Your task to perform on an android device: toggle notifications settings in the gmail app Image 0: 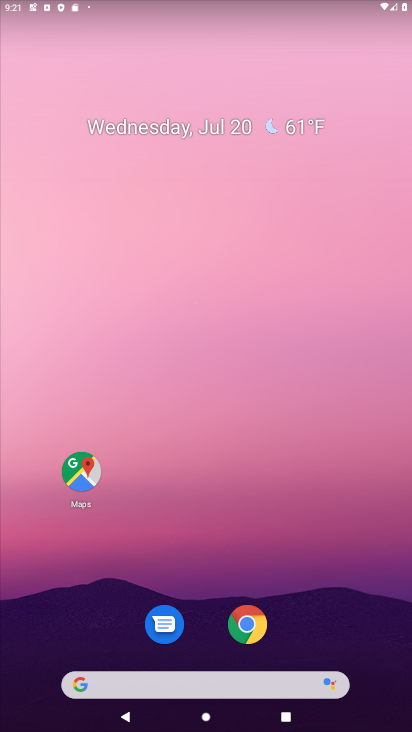
Step 0: drag from (210, 567) to (214, 168)
Your task to perform on an android device: toggle notifications settings in the gmail app Image 1: 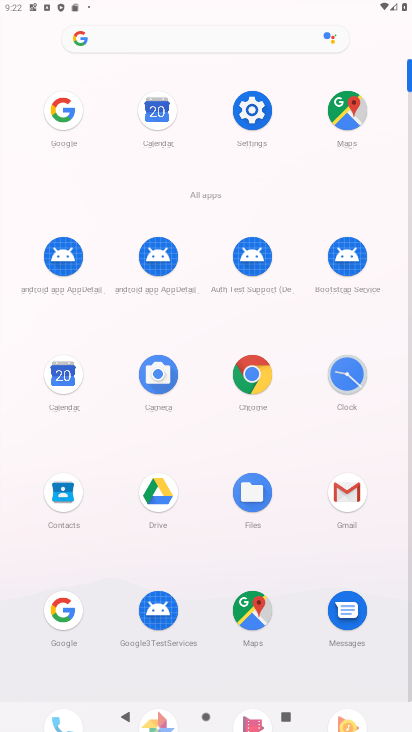
Step 1: click (327, 488)
Your task to perform on an android device: toggle notifications settings in the gmail app Image 2: 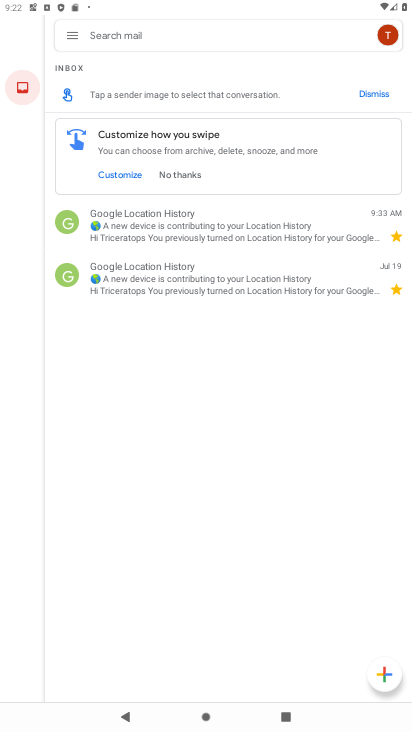
Step 2: click (69, 31)
Your task to perform on an android device: toggle notifications settings in the gmail app Image 3: 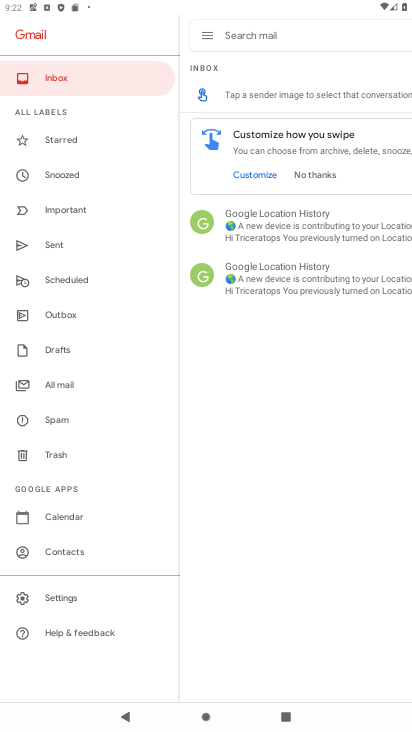
Step 3: click (78, 588)
Your task to perform on an android device: toggle notifications settings in the gmail app Image 4: 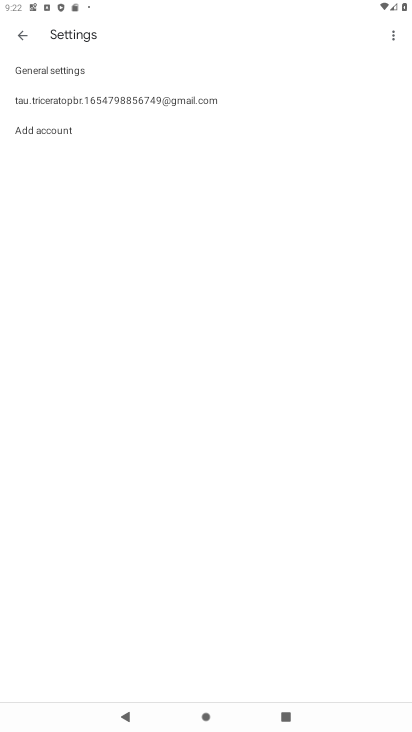
Step 4: click (155, 89)
Your task to perform on an android device: toggle notifications settings in the gmail app Image 5: 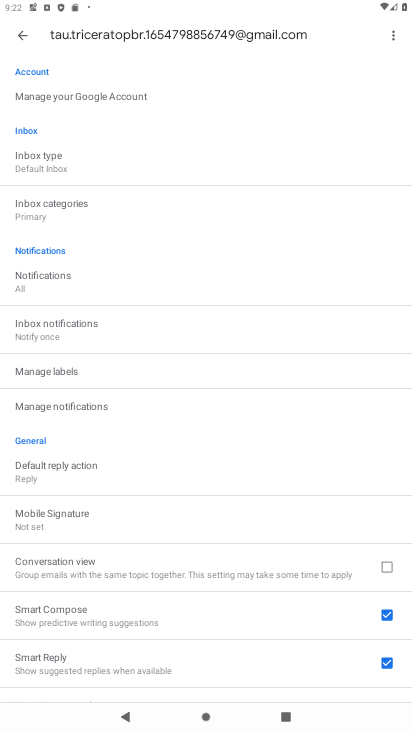
Step 5: click (129, 408)
Your task to perform on an android device: toggle notifications settings in the gmail app Image 6: 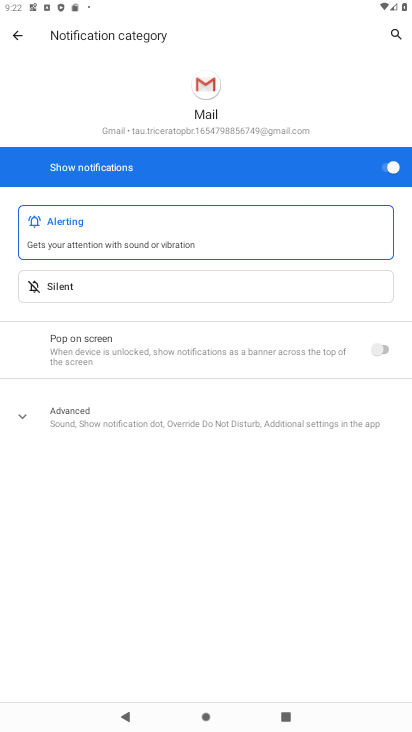
Step 6: click (374, 165)
Your task to perform on an android device: toggle notifications settings in the gmail app Image 7: 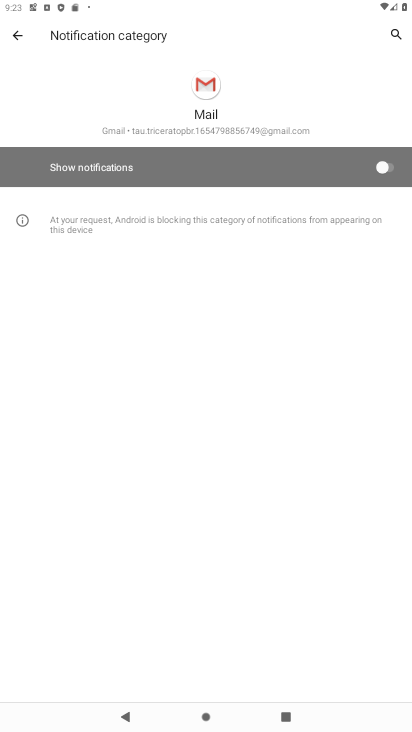
Step 7: task complete